Your task to perform on an android device: turn off wifi Image 0: 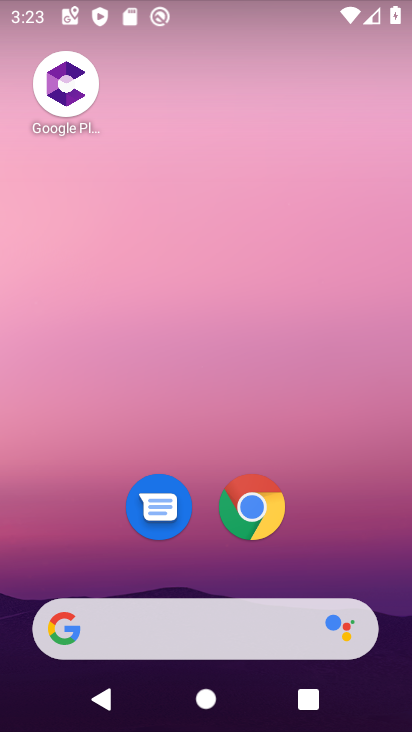
Step 0: drag from (106, 586) to (207, 25)
Your task to perform on an android device: turn off wifi Image 1: 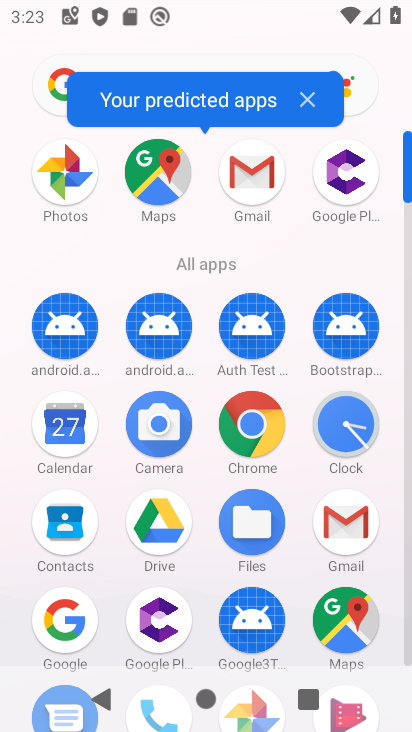
Step 1: drag from (120, 560) to (221, 288)
Your task to perform on an android device: turn off wifi Image 2: 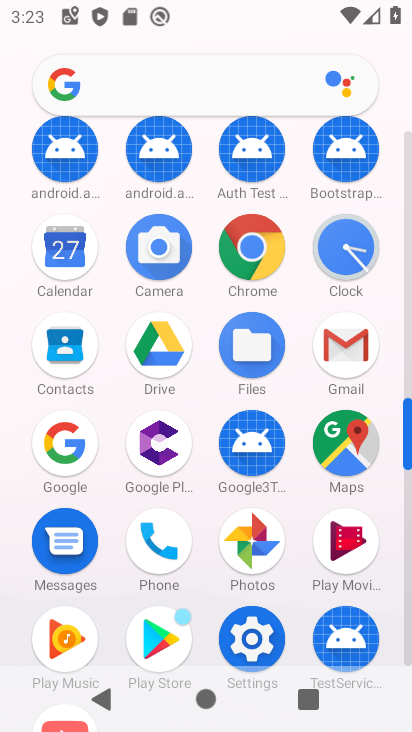
Step 2: click (273, 638)
Your task to perform on an android device: turn off wifi Image 3: 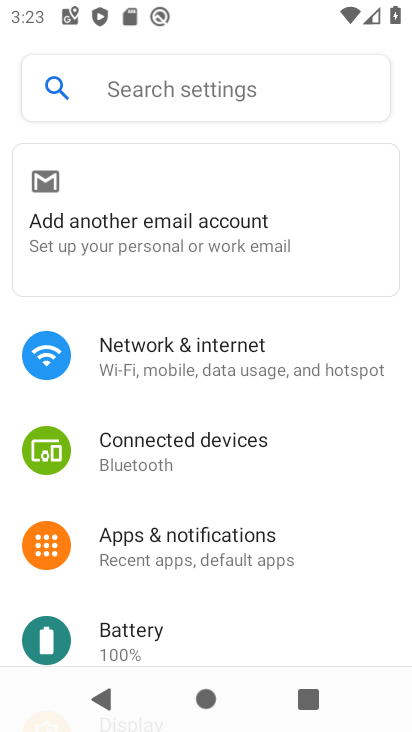
Step 3: click (238, 369)
Your task to perform on an android device: turn off wifi Image 4: 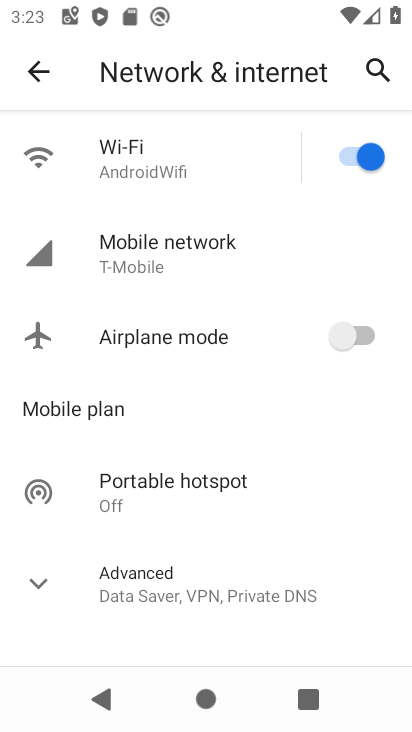
Step 4: click (348, 148)
Your task to perform on an android device: turn off wifi Image 5: 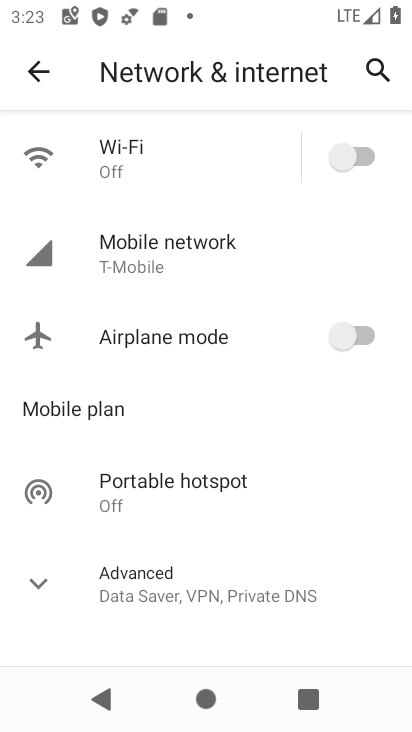
Step 5: task complete